Your task to perform on an android device: toggle wifi Image 0: 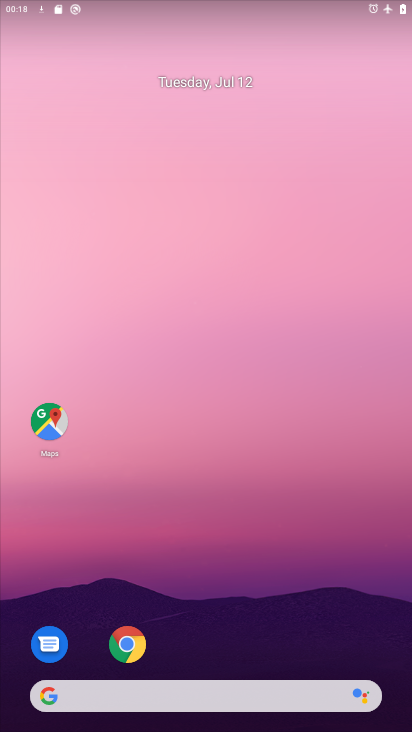
Step 0: drag from (234, 585) to (229, 211)
Your task to perform on an android device: toggle wifi Image 1: 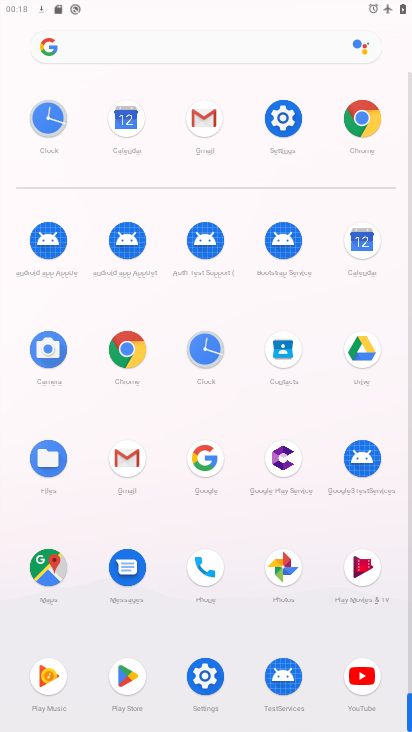
Step 1: click (294, 115)
Your task to perform on an android device: toggle wifi Image 2: 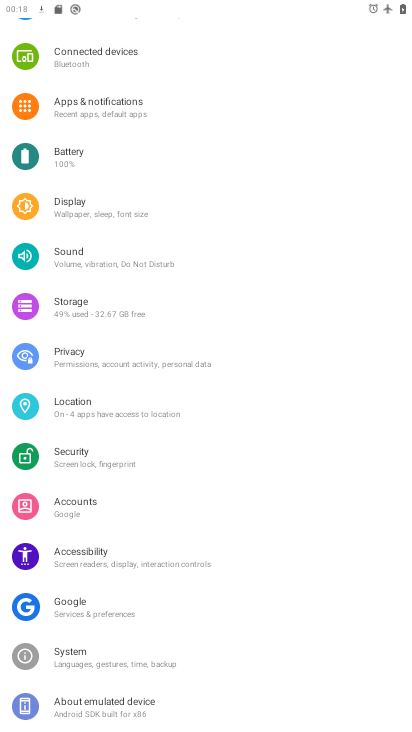
Step 2: drag from (119, 69) to (133, 610)
Your task to perform on an android device: toggle wifi Image 3: 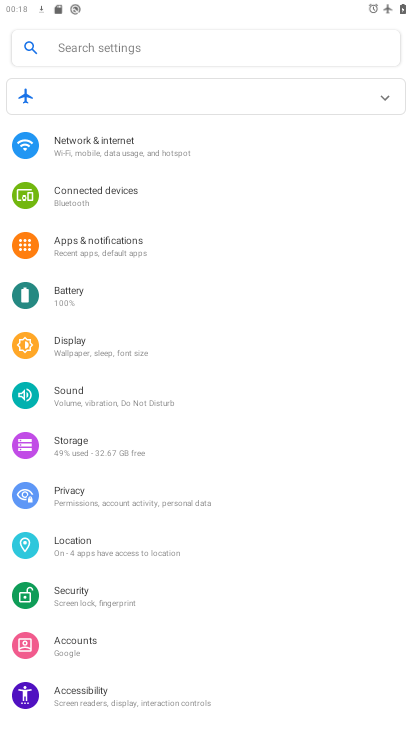
Step 3: click (78, 140)
Your task to perform on an android device: toggle wifi Image 4: 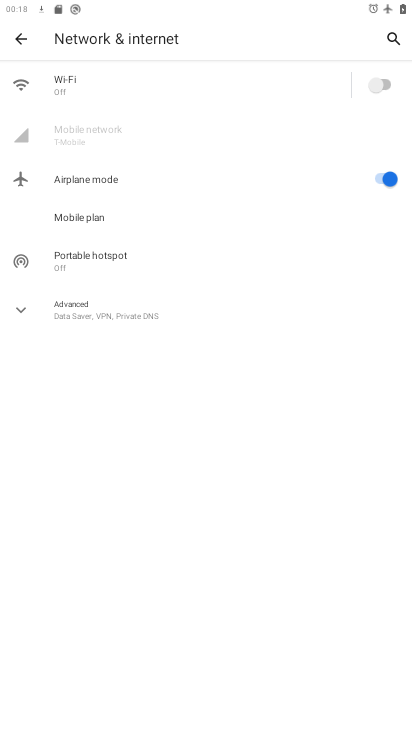
Step 4: click (395, 73)
Your task to perform on an android device: toggle wifi Image 5: 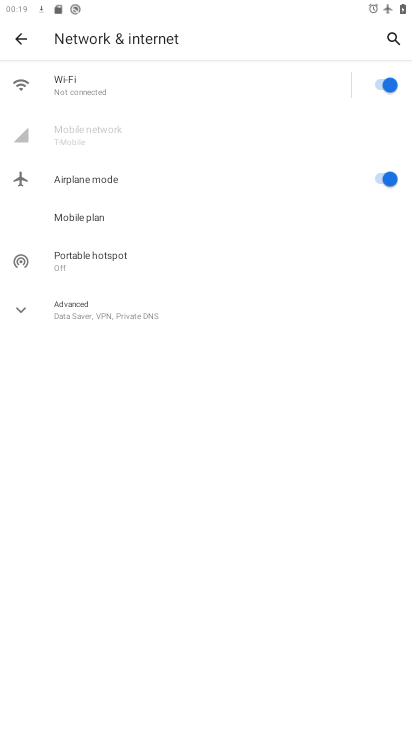
Step 5: task complete